Your task to perform on an android device: toggle javascript in the chrome app Image 0: 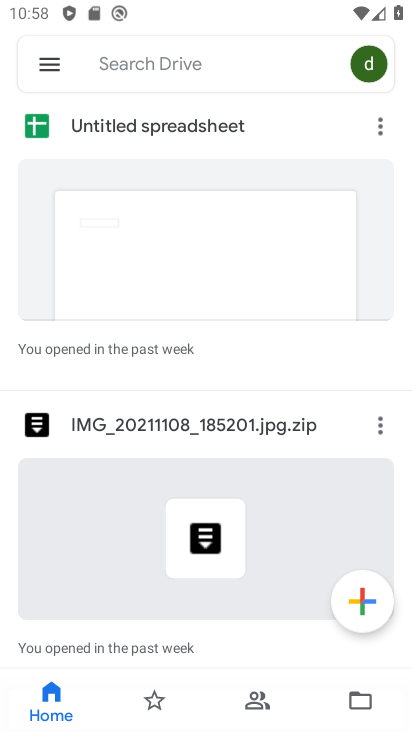
Step 0: press home button
Your task to perform on an android device: toggle javascript in the chrome app Image 1: 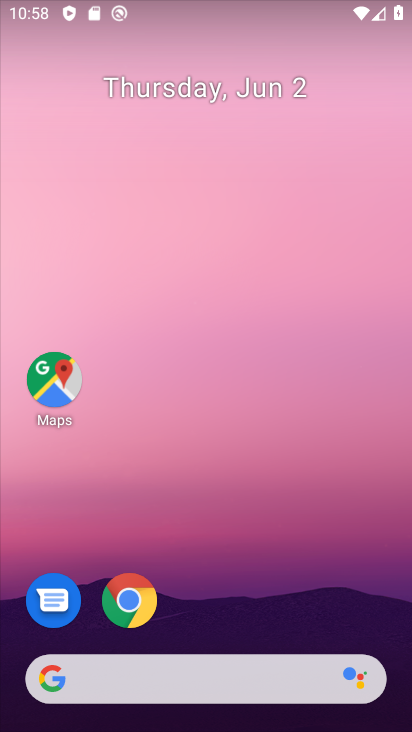
Step 1: click (295, 185)
Your task to perform on an android device: toggle javascript in the chrome app Image 2: 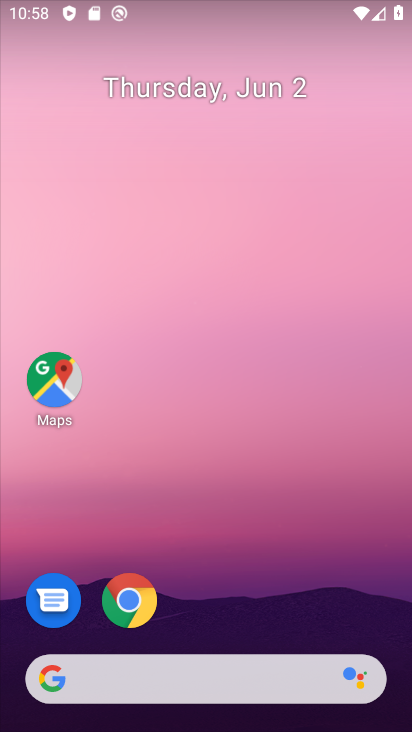
Step 2: click (115, 597)
Your task to perform on an android device: toggle javascript in the chrome app Image 3: 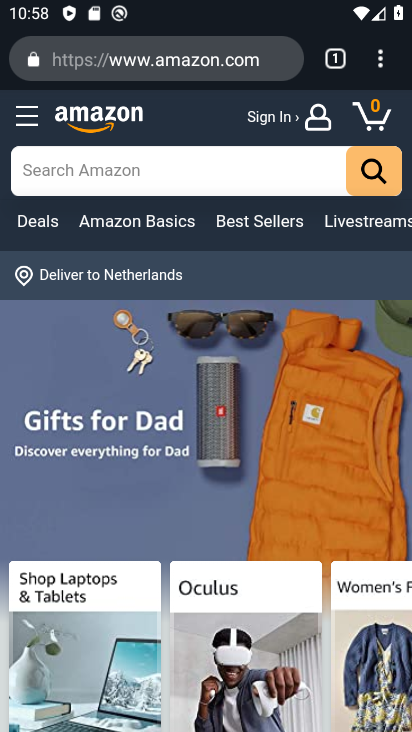
Step 3: click (385, 60)
Your task to perform on an android device: toggle javascript in the chrome app Image 4: 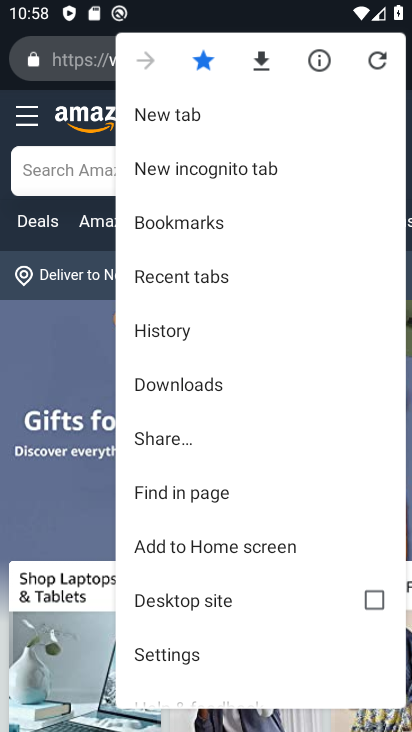
Step 4: click (216, 652)
Your task to perform on an android device: toggle javascript in the chrome app Image 5: 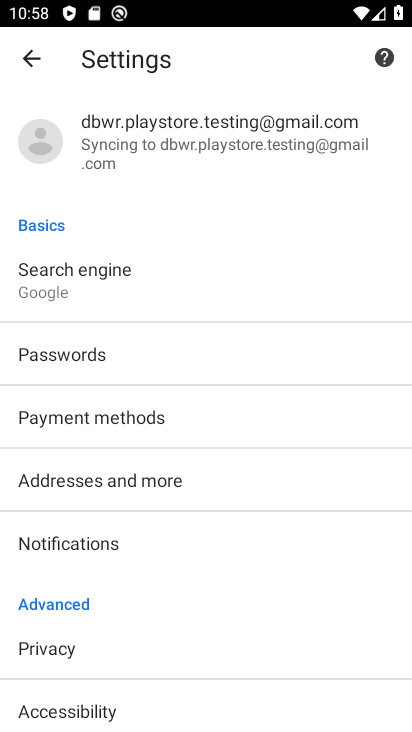
Step 5: drag from (216, 652) to (214, 80)
Your task to perform on an android device: toggle javascript in the chrome app Image 6: 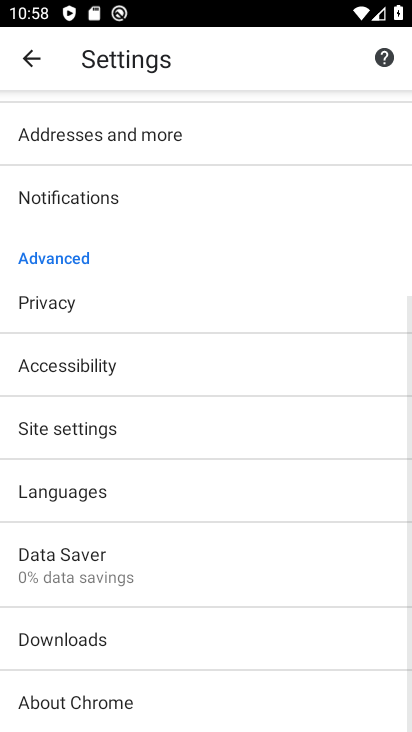
Step 6: click (146, 440)
Your task to perform on an android device: toggle javascript in the chrome app Image 7: 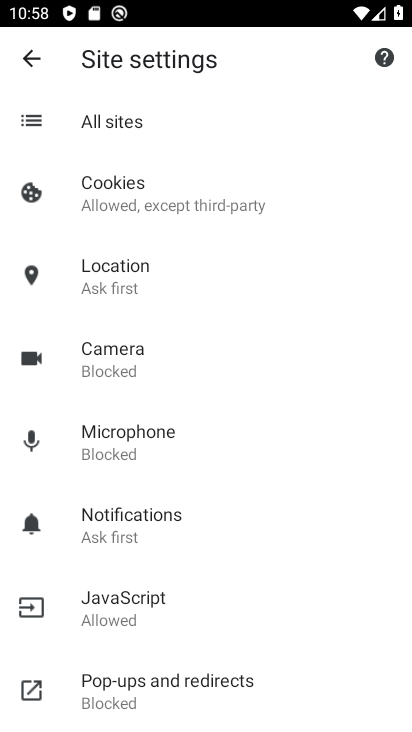
Step 7: drag from (128, 613) to (143, 390)
Your task to perform on an android device: toggle javascript in the chrome app Image 8: 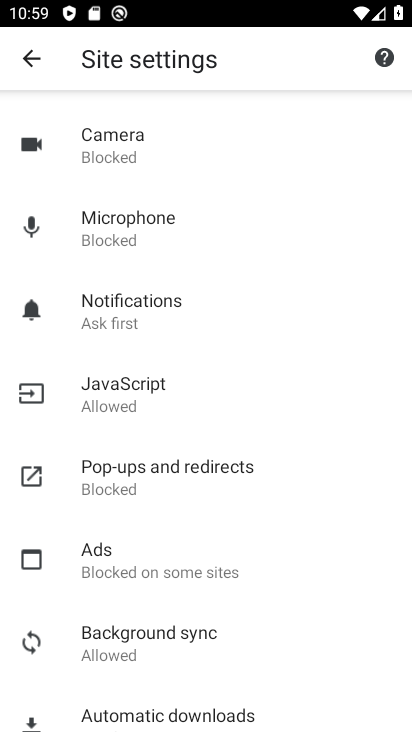
Step 8: click (136, 398)
Your task to perform on an android device: toggle javascript in the chrome app Image 9: 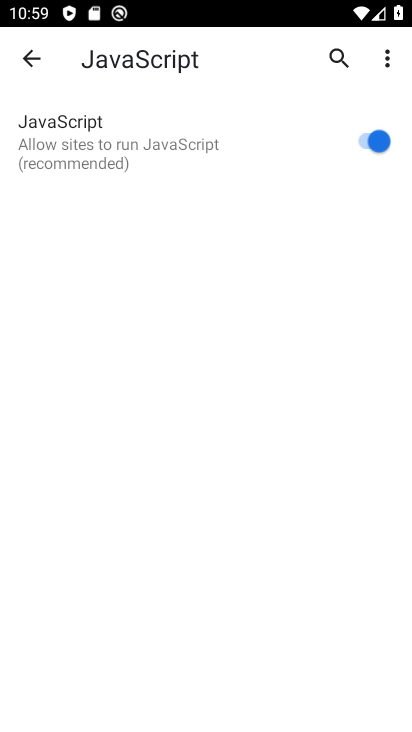
Step 9: click (373, 151)
Your task to perform on an android device: toggle javascript in the chrome app Image 10: 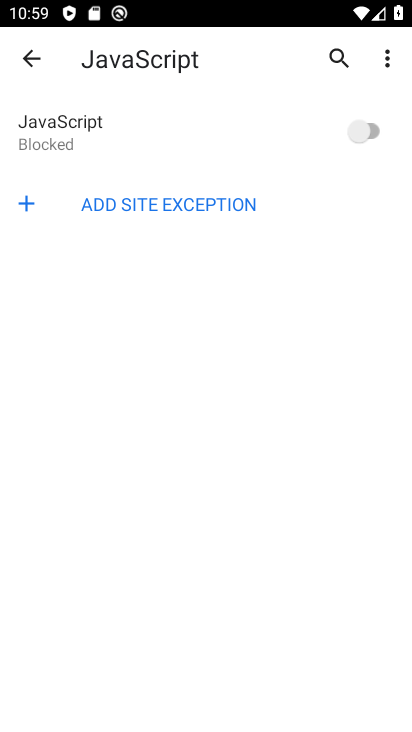
Step 10: task complete